Your task to perform on an android device: open the mobile data screen to see how much data has been used Image 0: 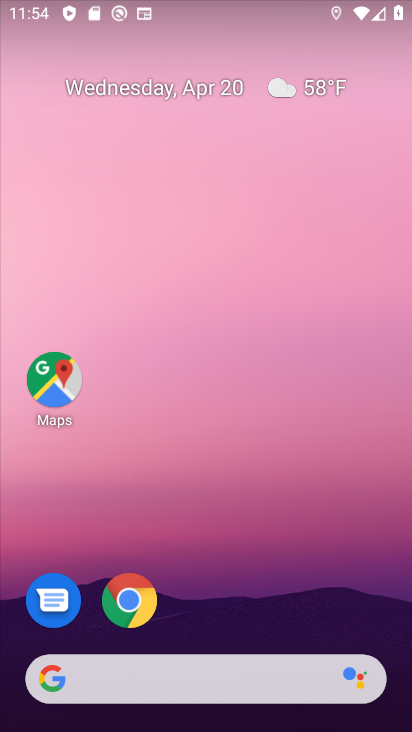
Step 0: drag from (218, 640) to (224, 119)
Your task to perform on an android device: open the mobile data screen to see how much data has been used Image 1: 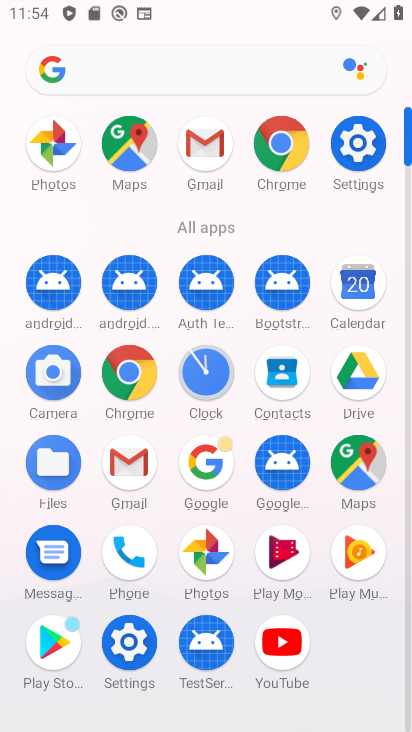
Step 1: click (352, 160)
Your task to perform on an android device: open the mobile data screen to see how much data has been used Image 2: 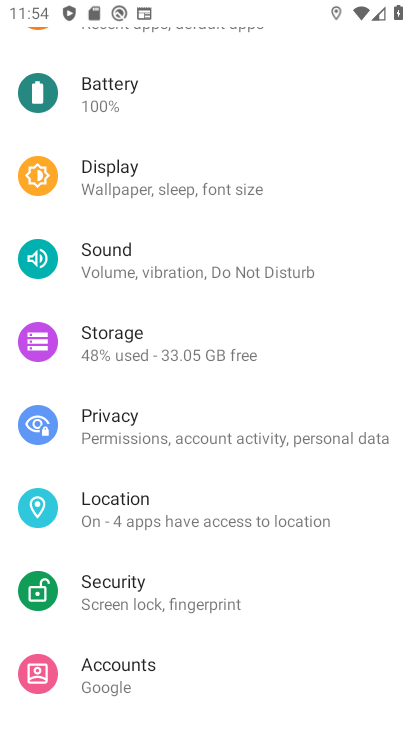
Step 2: drag from (198, 162) to (209, 716)
Your task to perform on an android device: open the mobile data screen to see how much data has been used Image 3: 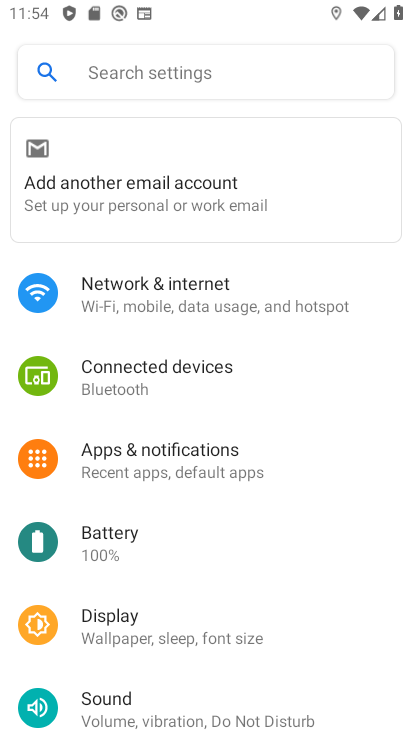
Step 3: click (182, 314)
Your task to perform on an android device: open the mobile data screen to see how much data has been used Image 4: 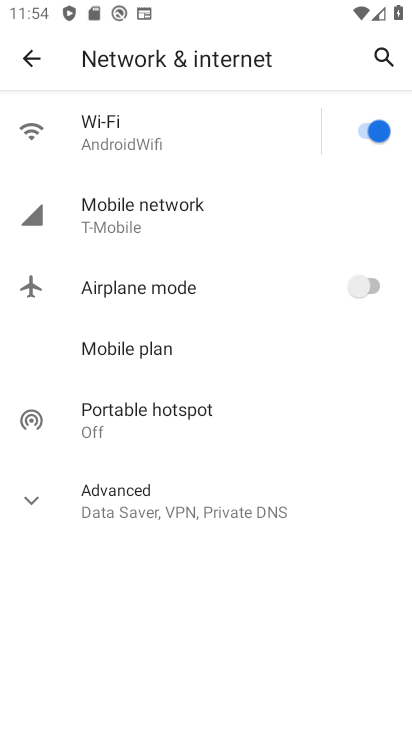
Step 4: click (173, 227)
Your task to perform on an android device: open the mobile data screen to see how much data has been used Image 5: 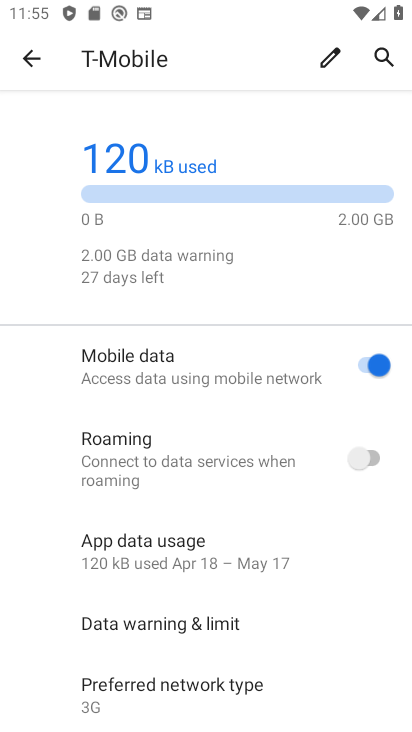
Step 5: task complete